Your task to perform on an android device: toggle show notifications on the lock screen Image 0: 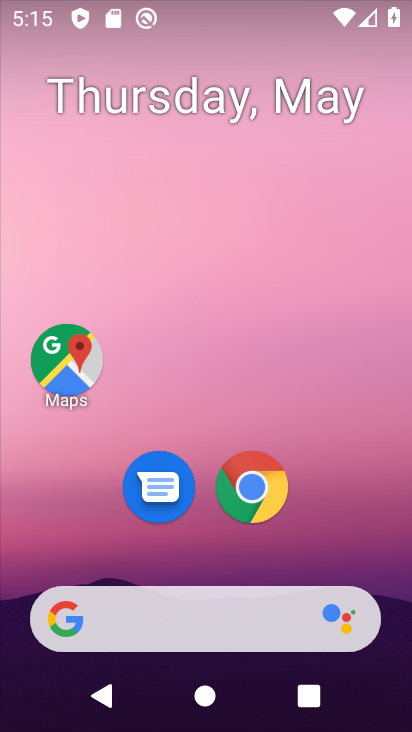
Step 0: drag from (352, 525) to (308, 61)
Your task to perform on an android device: toggle show notifications on the lock screen Image 1: 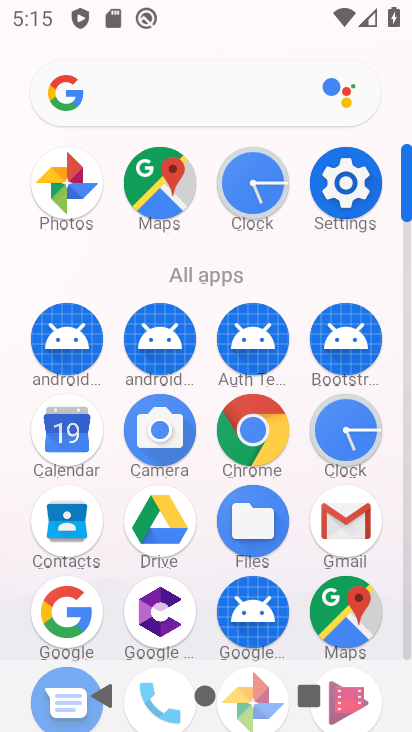
Step 1: click (336, 187)
Your task to perform on an android device: toggle show notifications on the lock screen Image 2: 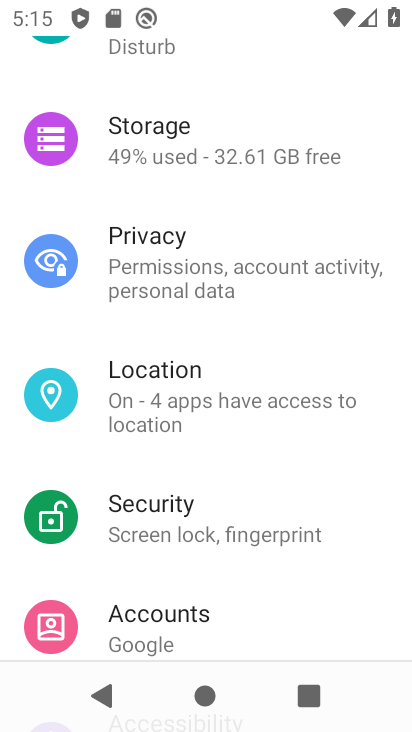
Step 2: drag from (302, 238) to (271, 554)
Your task to perform on an android device: toggle show notifications on the lock screen Image 3: 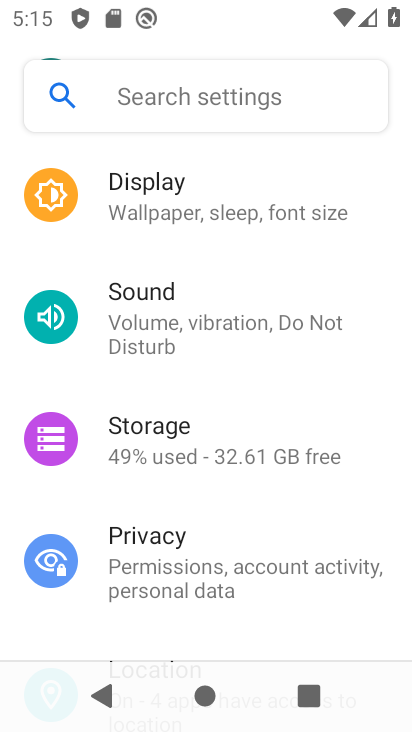
Step 3: drag from (259, 253) to (264, 577)
Your task to perform on an android device: toggle show notifications on the lock screen Image 4: 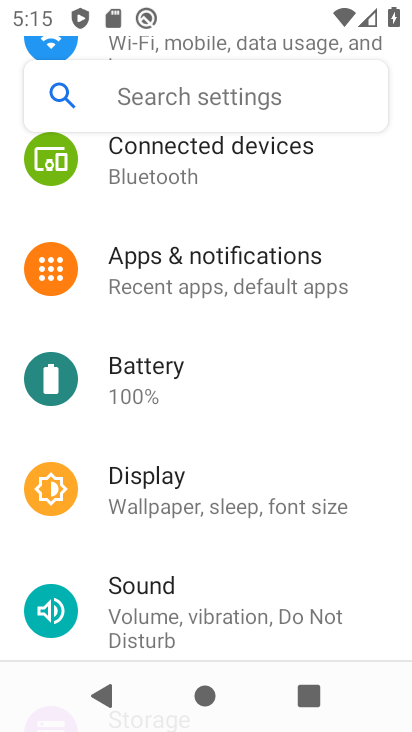
Step 4: click (258, 267)
Your task to perform on an android device: toggle show notifications on the lock screen Image 5: 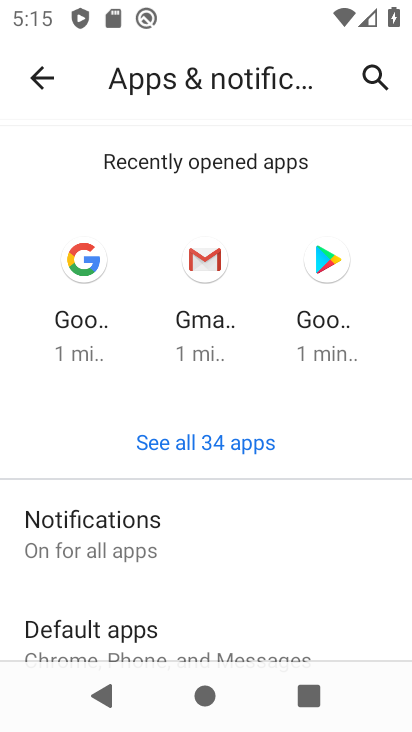
Step 5: click (232, 540)
Your task to perform on an android device: toggle show notifications on the lock screen Image 6: 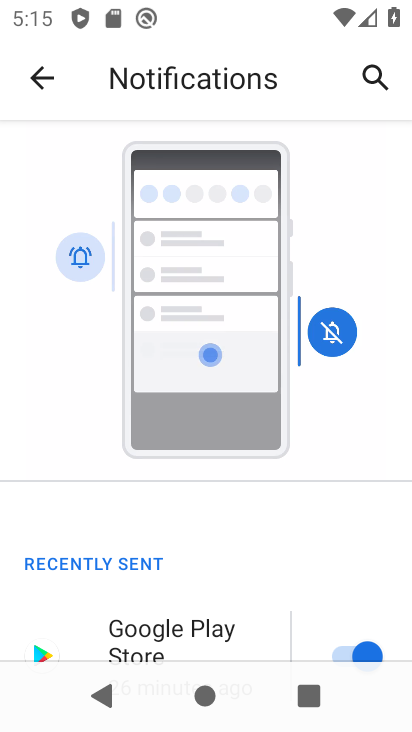
Step 6: drag from (235, 572) to (299, 155)
Your task to perform on an android device: toggle show notifications on the lock screen Image 7: 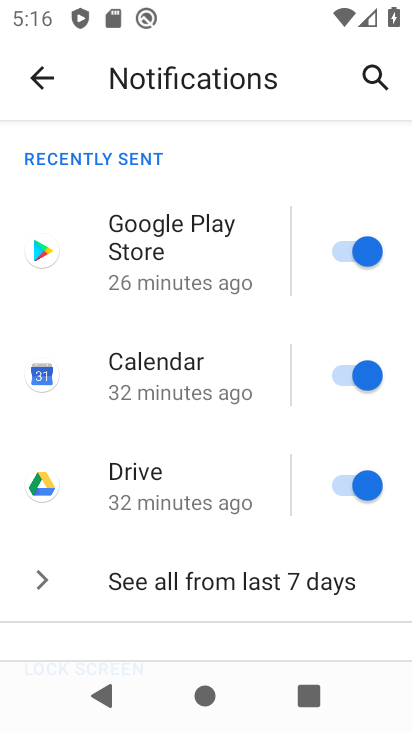
Step 7: drag from (252, 418) to (284, 138)
Your task to perform on an android device: toggle show notifications on the lock screen Image 8: 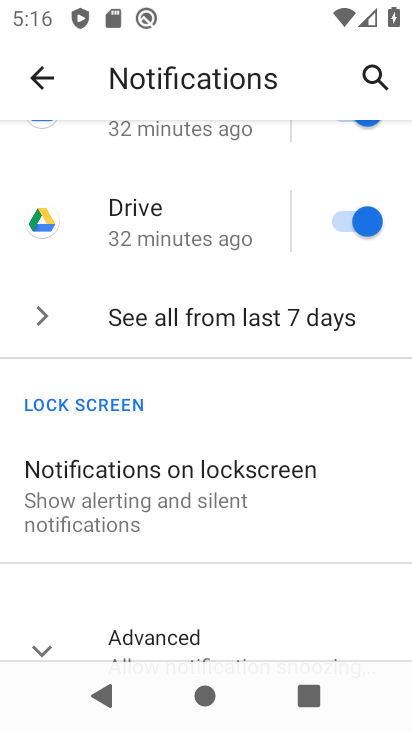
Step 8: click (217, 489)
Your task to perform on an android device: toggle show notifications on the lock screen Image 9: 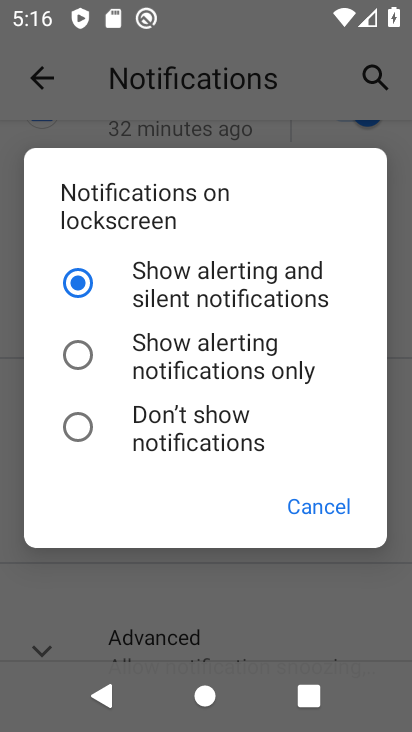
Step 9: click (81, 420)
Your task to perform on an android device: toggle show notifications on the lock screen Image 10: 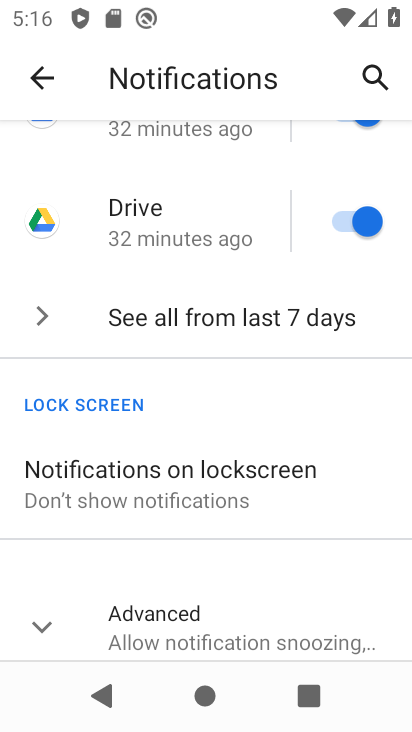
Step 10: task complete